Your task to perform on an android device: Open Chrome and go to settings Image 0: 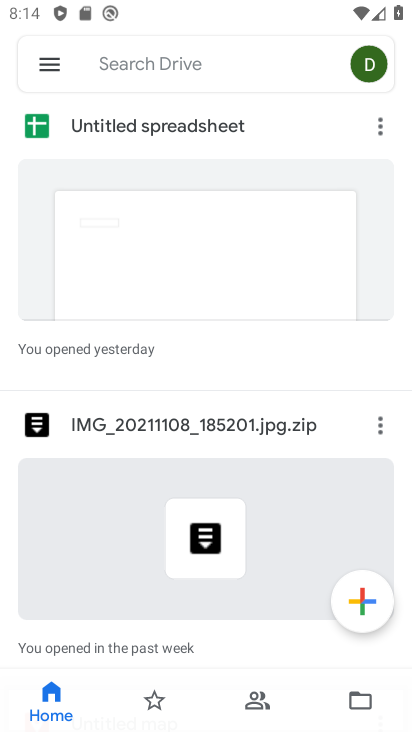
Step 0: press home button
Your task to perform on an android device: Open Chrome and go to settings Image 1: 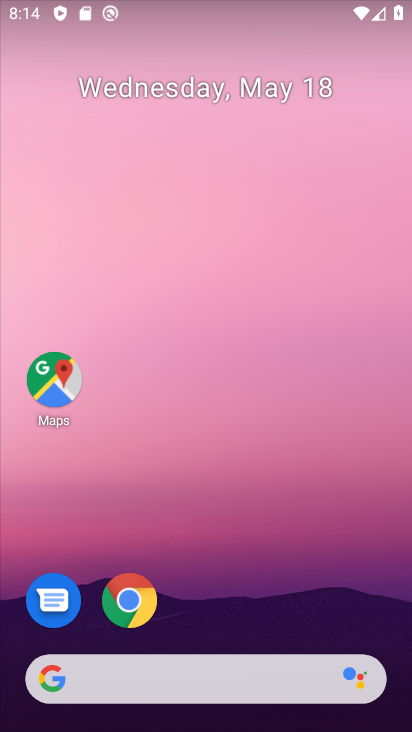
Step 1: click (133, 592)
Your task to perform on an android device: Open Chrome and go to settings Image 2: 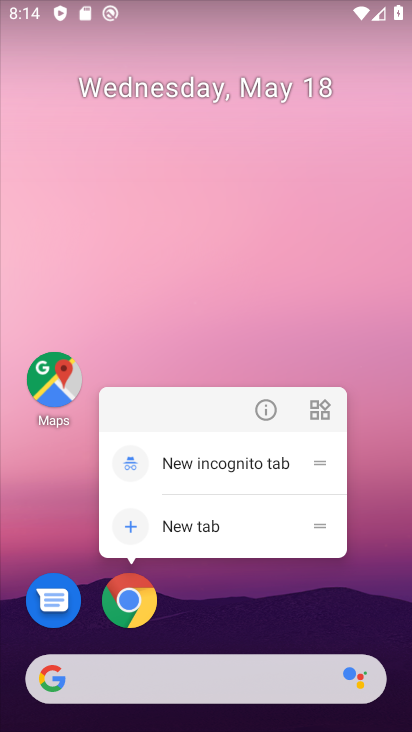
Step 2: click (260, 293)
Your task to perform on an android device: Open Chrome and go to settings Image 3: 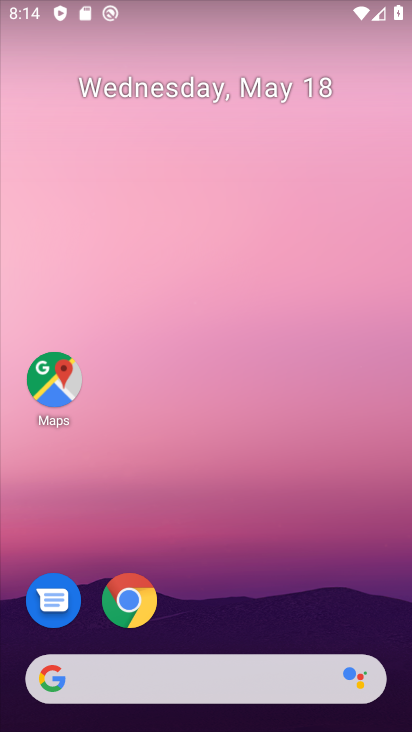
Step 3: click (123, 599)
Your task to perform on an android device: Open Chrome and go to settings Image 4: 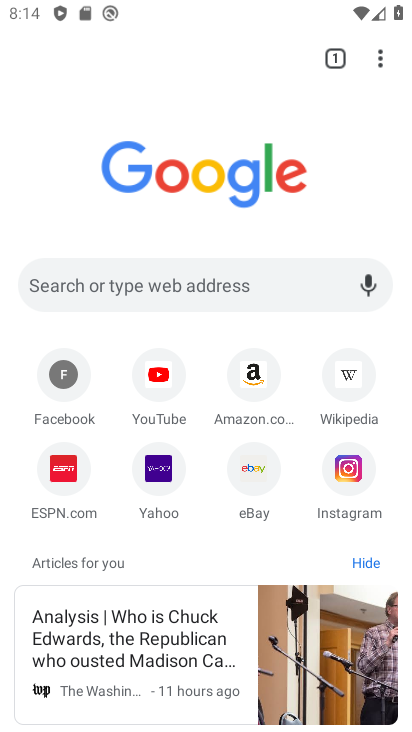
Step 4: click (378, 63)
Your task to perform on an android device: Open Chrome and go to settings Image 5: 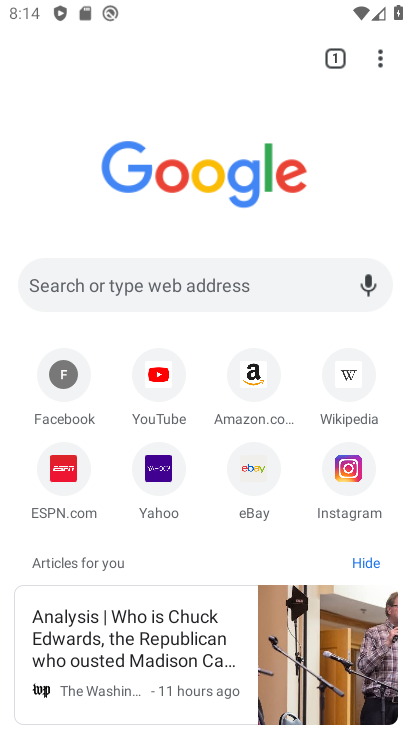
Step 5: click (380, 51)
Your task to perform on an android device: Open Chrome and go to settings Image 6: 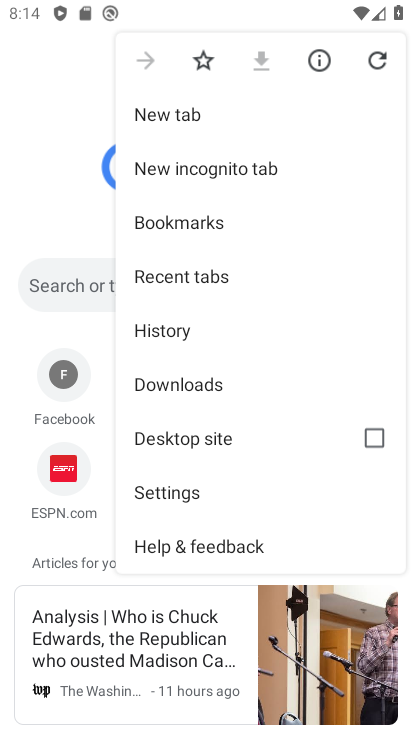
Step 6: click (194, 485)
Your task to perform on an android device: Open Chrome and go to settings Image 7: 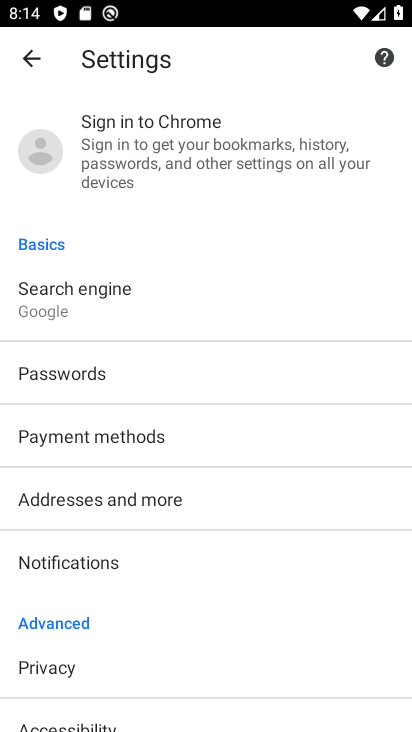
Step 7: task complete